Your task to perform on an android device: Search for "usb-c" on bestbuy, select the first entry, and add it to the cart. Image 0: 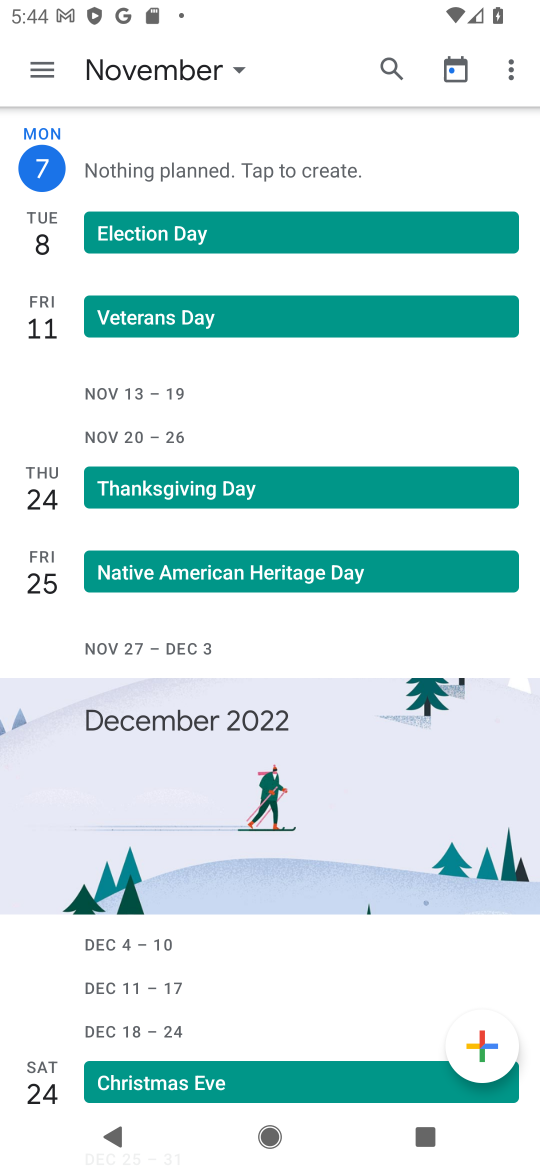
Step 0: task complete